Your task to perform on an android device: open wifi settings Image 0: 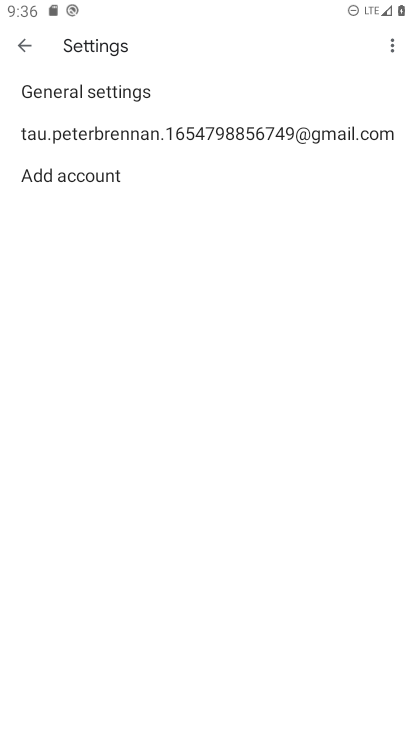
Step 0: press home button
Your task to perform on an android device: open wifi settings Image 1: 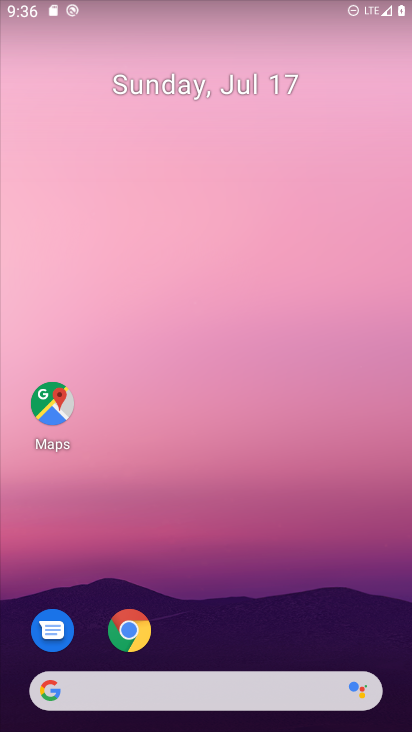
Step 1: drag from (242, 568) to (223, 79)
Your task to perform on an android device: open wifi settings Image 2: 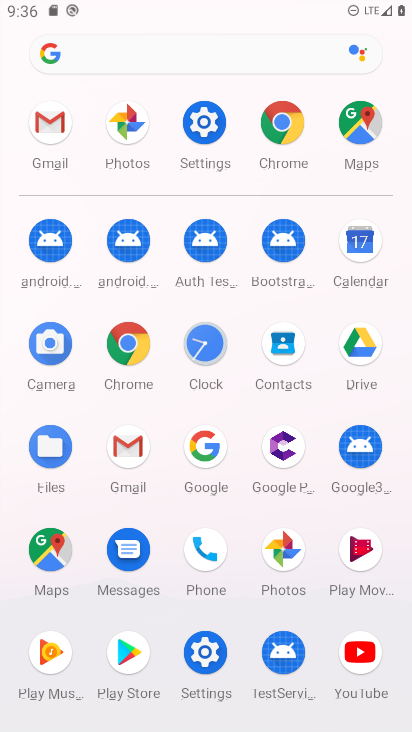
Step 2: click (202, 110)
Your task to perform on an android device: open wifi settings Image 3: 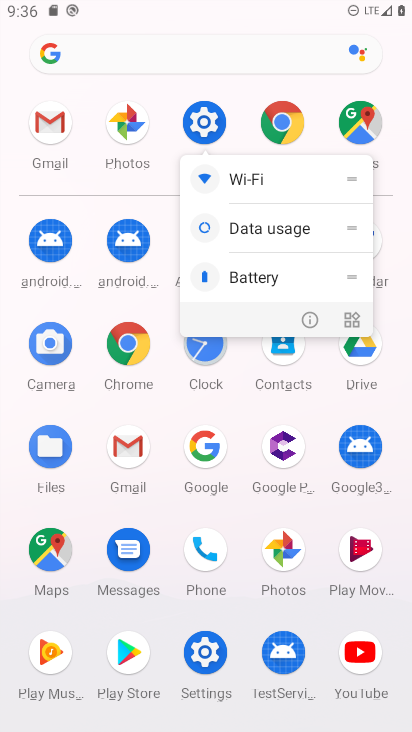
Step 3: click (204, 110)
Your task to perform on an android device: open wifi settings Image 4: 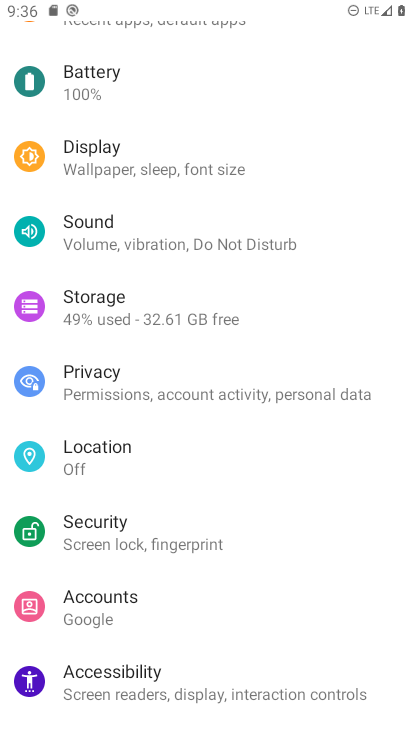
Step 4: drag from (210, 88) to (156, 704)
Your task to perform on an android device: open wifi settings Image 5: 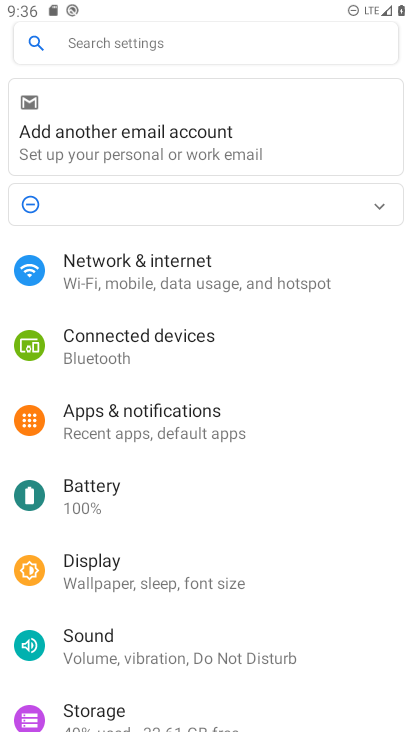
Step 5: click (226, 269)
Your task to perform on an android device: open wifi settings Image 6: 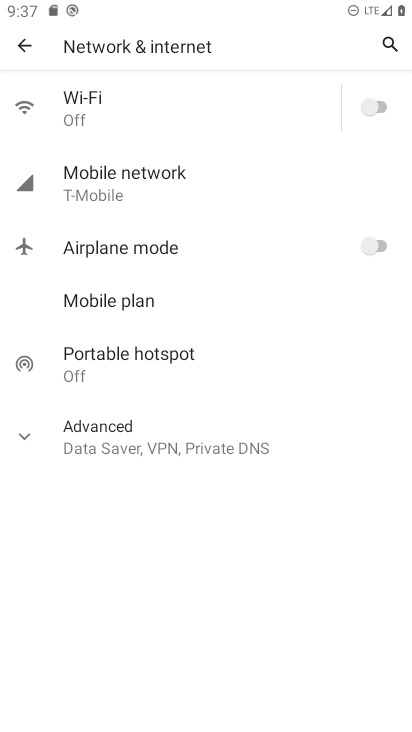
Step 6: click (171, 105)
Your task to perform on an android device: open wifi settings Image 7: 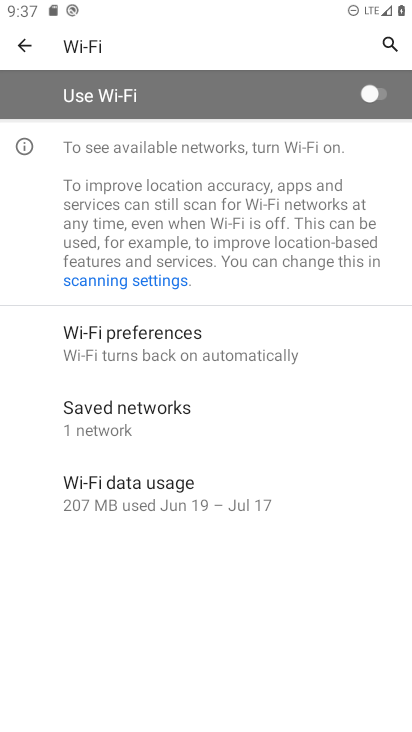
Step 7: task complete